Your task to perform on an android device: Search for pizza restaurants on Maps Image 0: 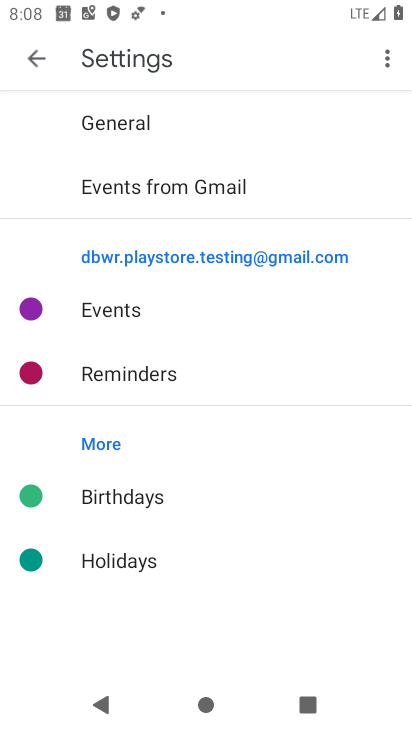
Step 0: press home button
Your task to perform on an android device: Search for pizza restaurants on Maps Image 1: 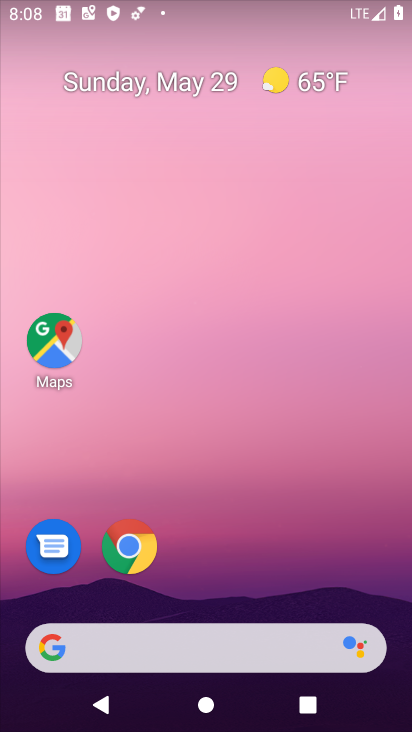
Step 1: drag from (248, 621) to (241, 165)
Your task to perform on an android device: Search for pizza restaurants on Maps Image 2: 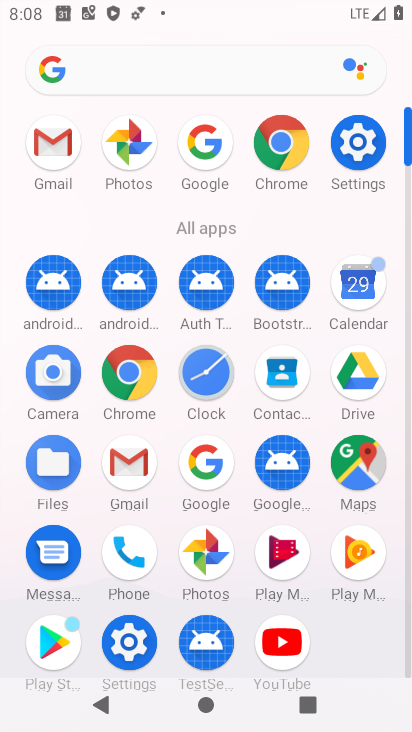
Step 2: click (371, 469)
Your task to perform on an android device: Search for pizza restaurants on Maps Image 3: 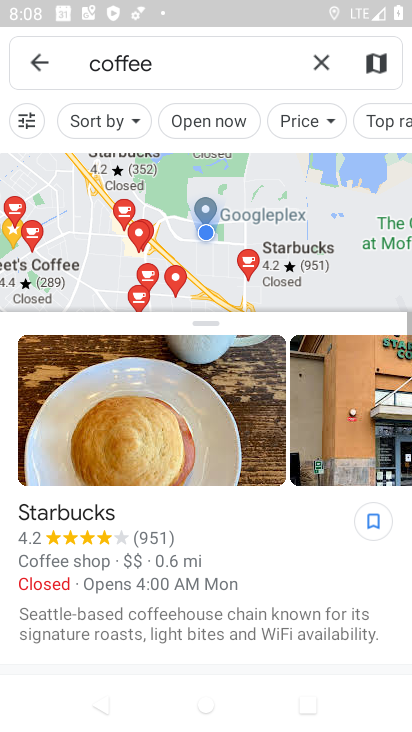
Step 3: click (186, 62)
Your task to perform on an android device: Search for pizza restaurants on Maps Image 4: 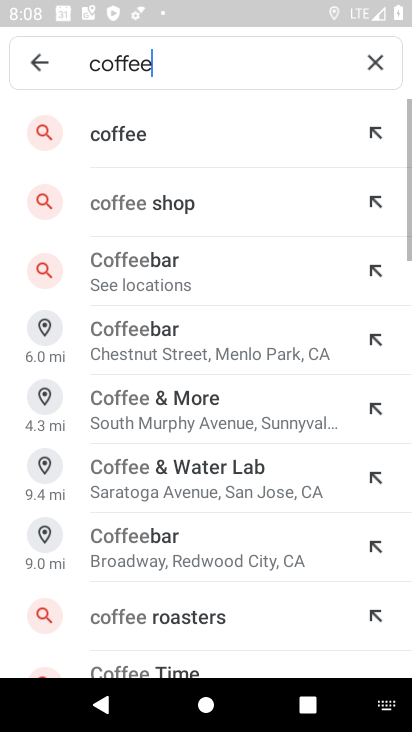
Step 4: click (383, 67)
Your task to perform on an android device: Search for pizza restaurants on Maps Image 5: 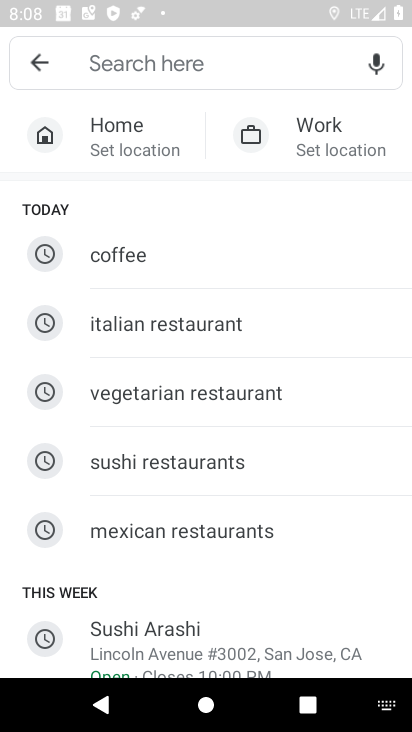
Step 5: type "pizza restaurants"
Your task to perform on an android device: Search for pizza restaurants on Maps Image 6: 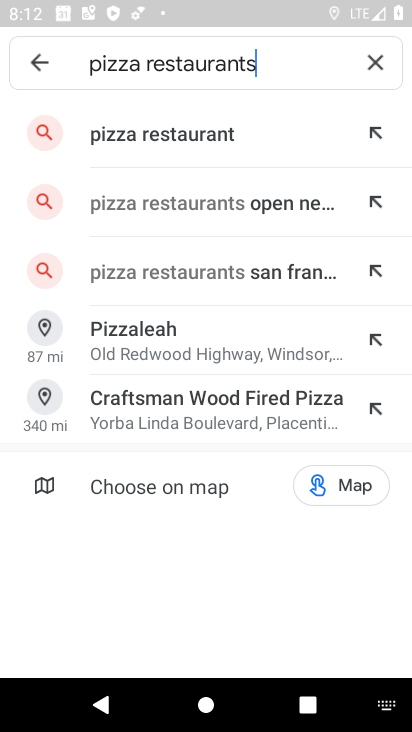
Step 6: click (154, 135)
Your task to perform on an android device: Search for pizza restaurants on Maps Image 7: 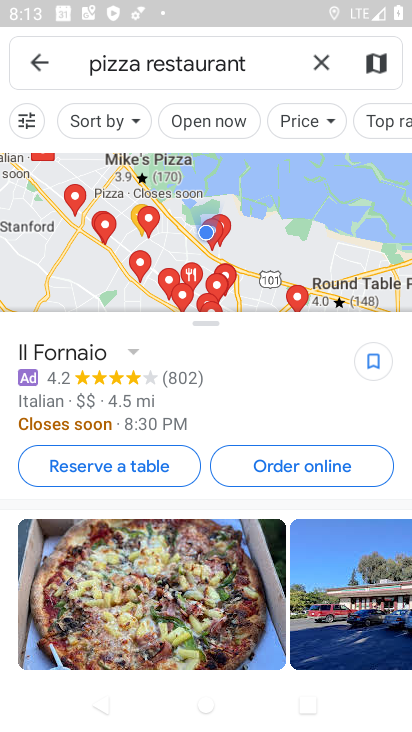
Step 7: task complete